Your task to perform on an android device: Open network settings Image 0: 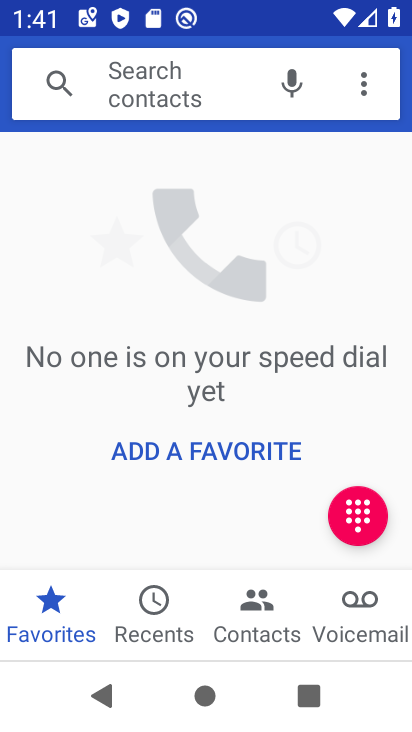
Step 0: press back button
Your task to perform on an android device: Open network settings Image 1: 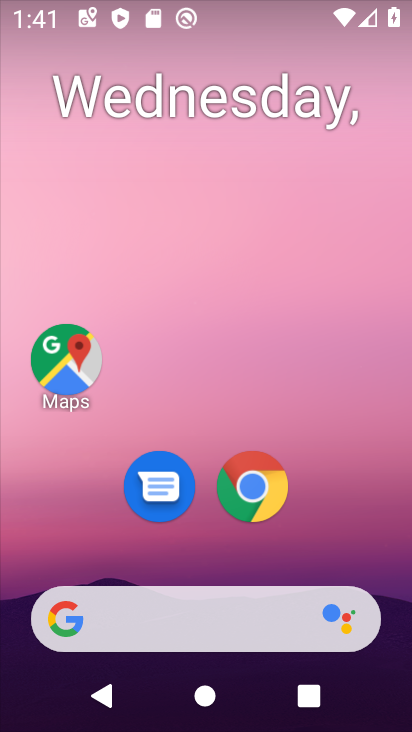
Step 1: drag from (219, 553) to (217, 45)
Your task to perform on an android device: Open network settings Image 2: 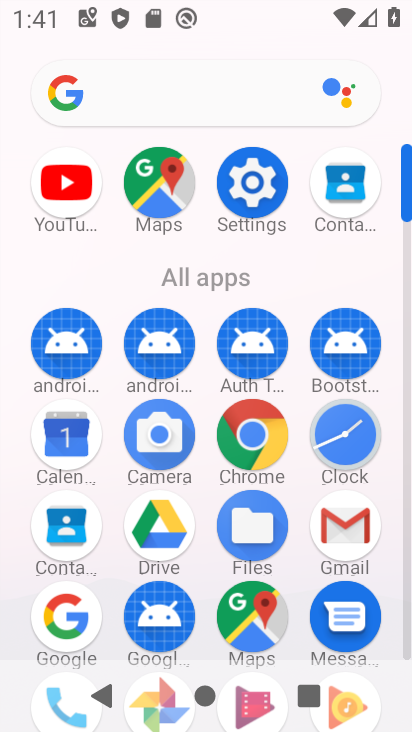
Step 2: click (251, 183)
Your task to perform on an android device: Open network settings Image 3: 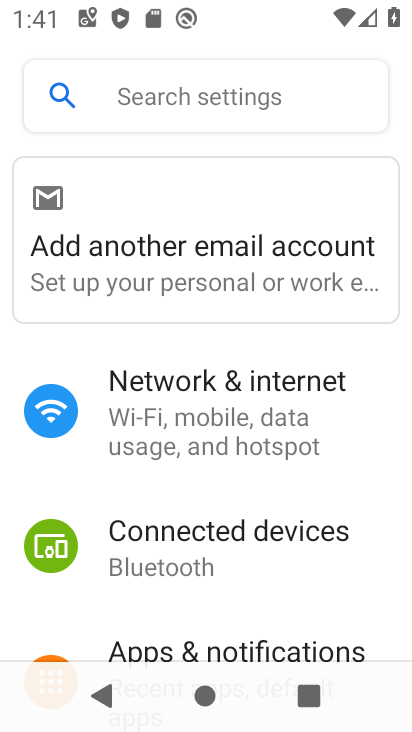
Step 3: click (161, 400)
Your task to perform on an android device: Open network settings Image 4: 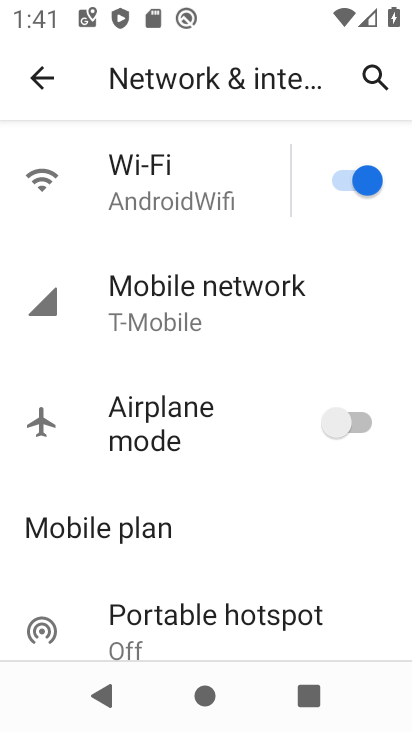
Step 4: task complete